Your task to perform on an android device: How much does a3 bedroom apartment rent for in Portland? Image 0: 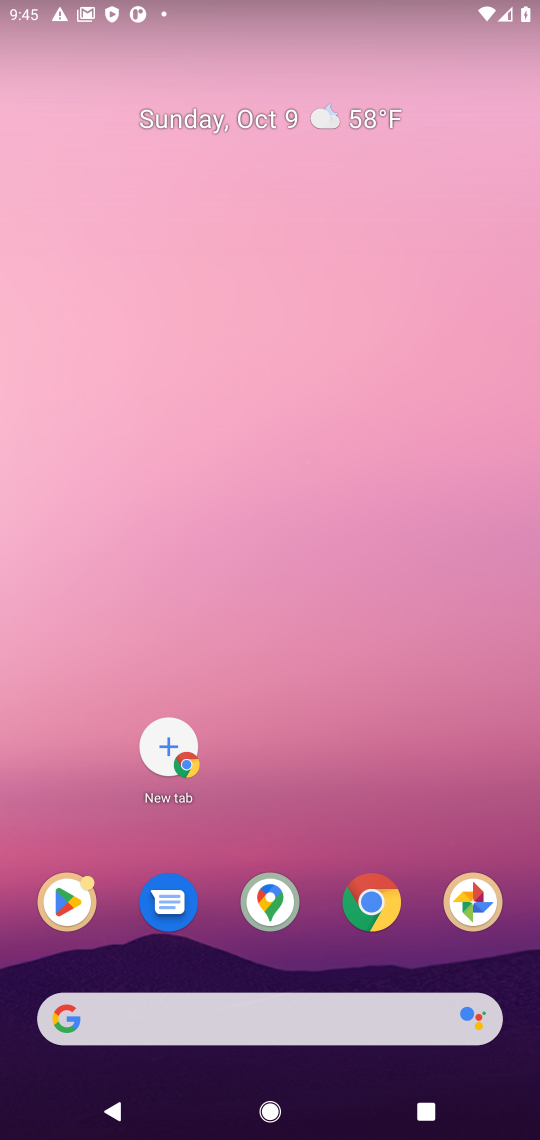
Step 0: click (380, 896)
Your task to perform on an android device: How much does a3 bedroom apartment rent for in Portland? Image 1: 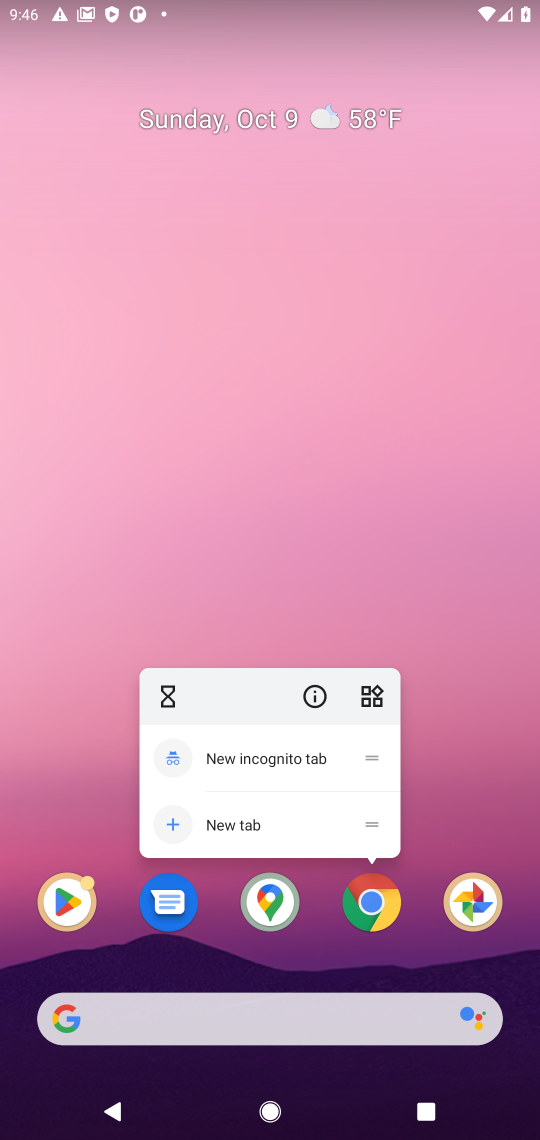
Step 1: click (374, 899)
Your task to perform on an android device: How much does a3 bedroom apartment rent for in Portland? Image 2: 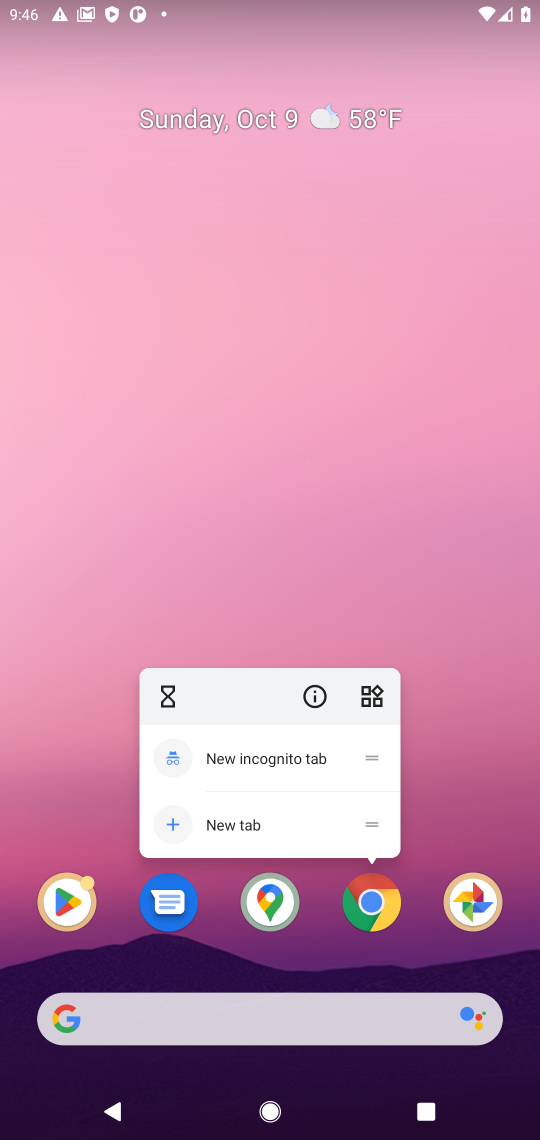
Step 2: click (377, 919)
Your task to perform on an android device: How much does a3 bedroom apartment rent for in Portland? Image 3: 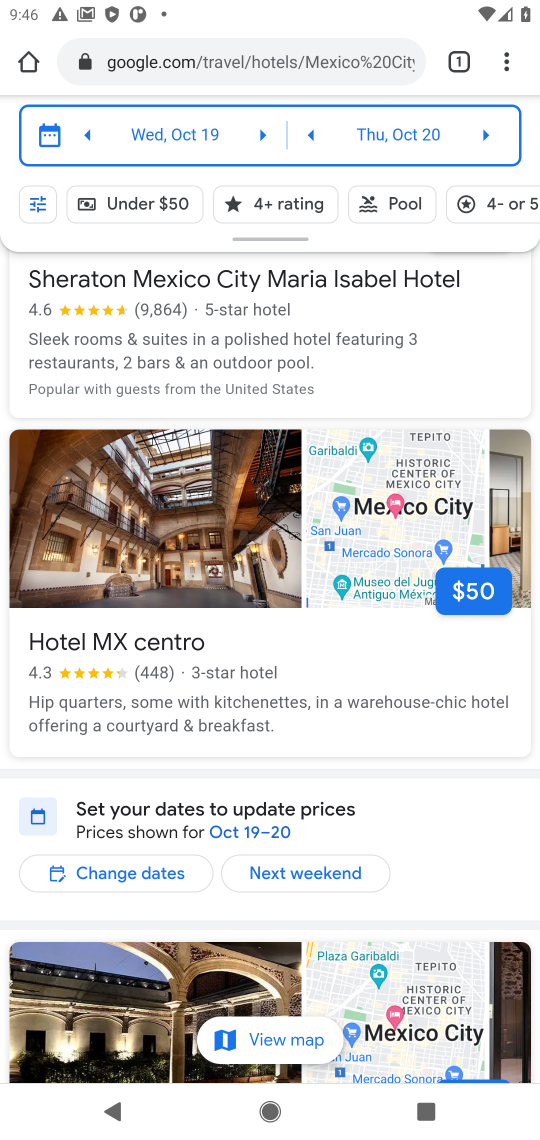
Step 3: click (259, 54)
Your task to perform on an android device: How much does a3 bedroom apartment rent for in Portland? Image 4: 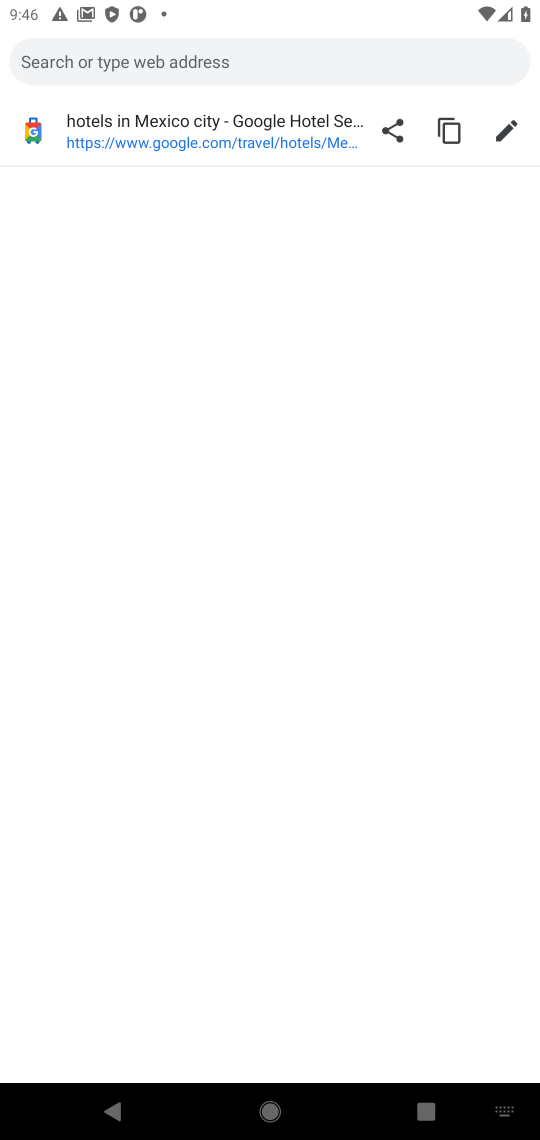
Step 4: type "3 bedroom apartment rent for in Portland"
Your task to perform on an android device: How much does a3 bedroom apartment rent for in Portland? Image 5: 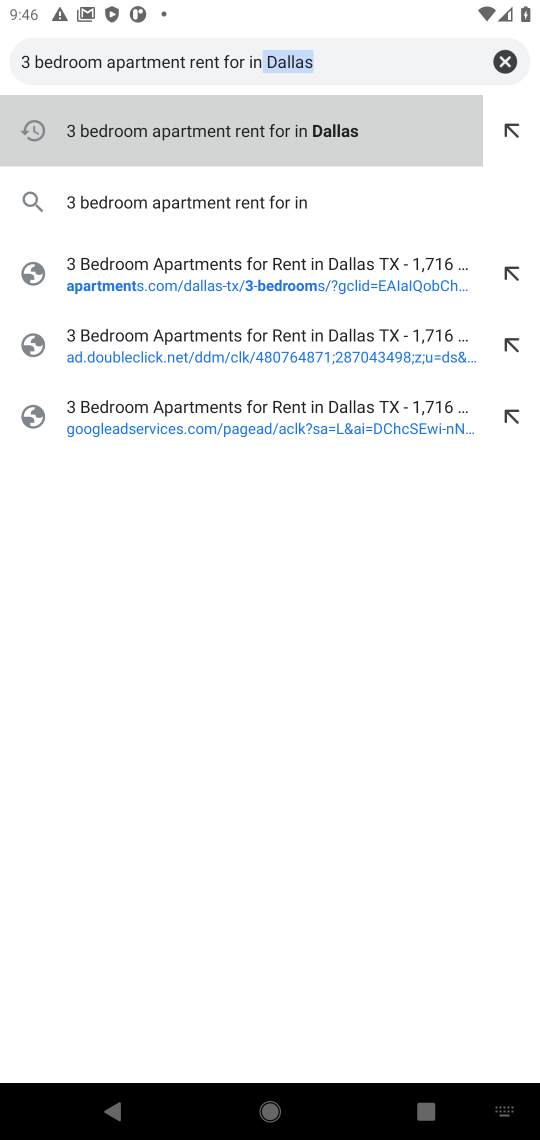
Step 5: click (504, 67)
Your task to perform on an android device: How much does a3 bedroom apartment rent for in Portland? Image 6: 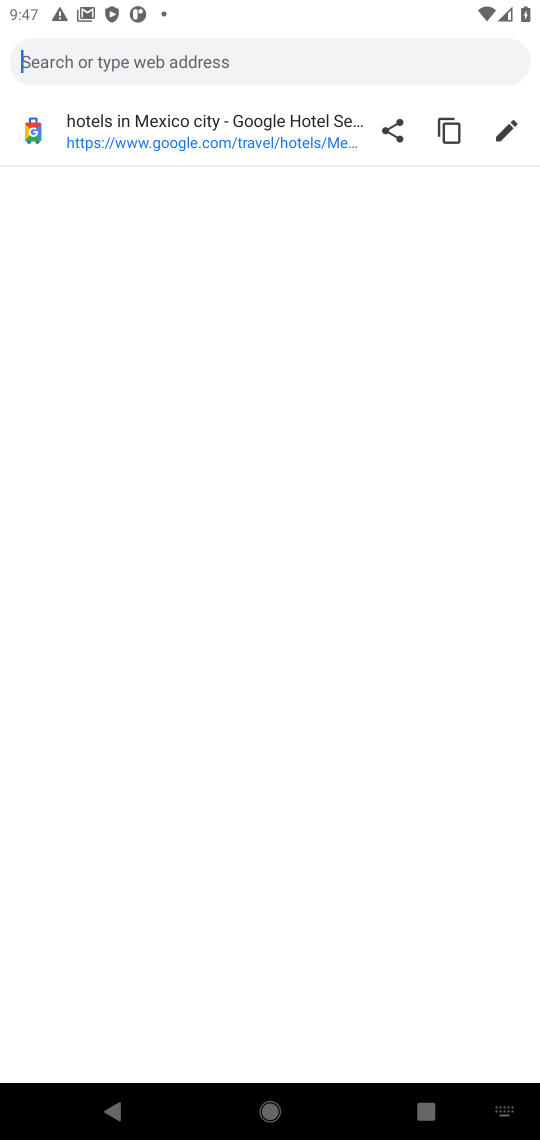
Step 6: type "3 bedroom apartment rent for in portland"
Your task to perform on an android device: How much does a3 bedroom apartment rent for in Portland? Image 7: 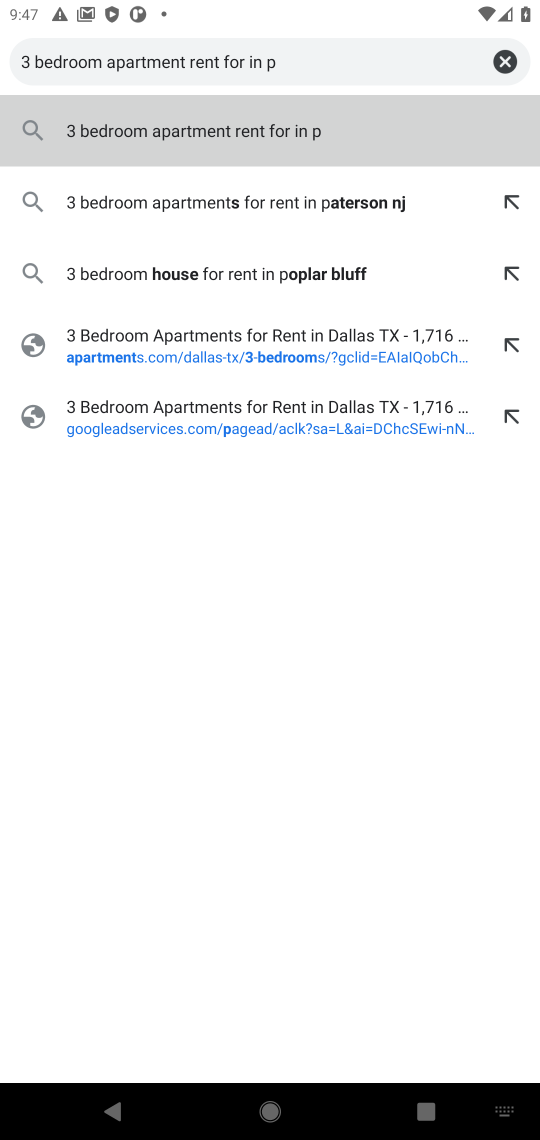
Step 7: type "ortland"
Your task to perform on an android device: How much does a3 bedroom apartment rent for in Portland? Image 8: 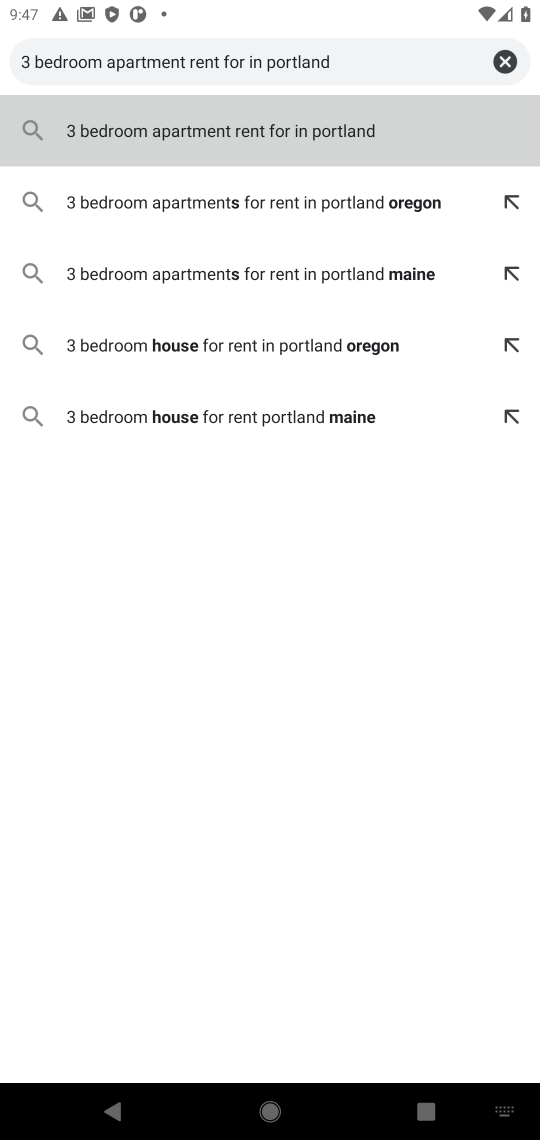
Step 8: type ""
Your task to perform on an android device: How much does a3 bedroom apartment rent for in Portland? Image 9: 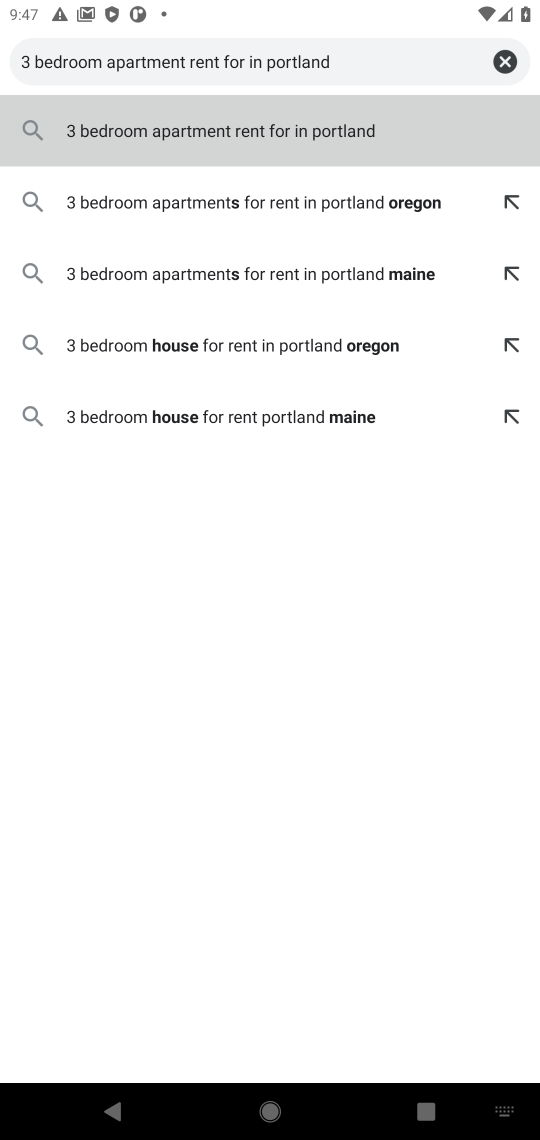
Step 9: click (240, 132)
Your task to perform on an android device: How much does a3 bedroom apartment rent for in Portland? Image 10: 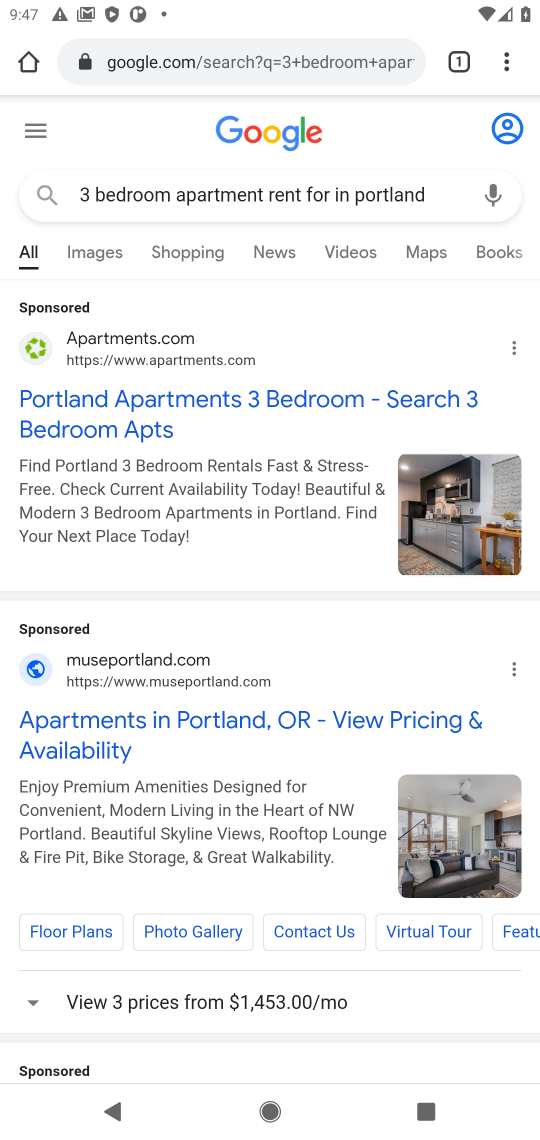
Step 10: click (374, 656)
Your task to perform on an android device: How much does a3 bedroom apartment rent for in Portland? Image 11: 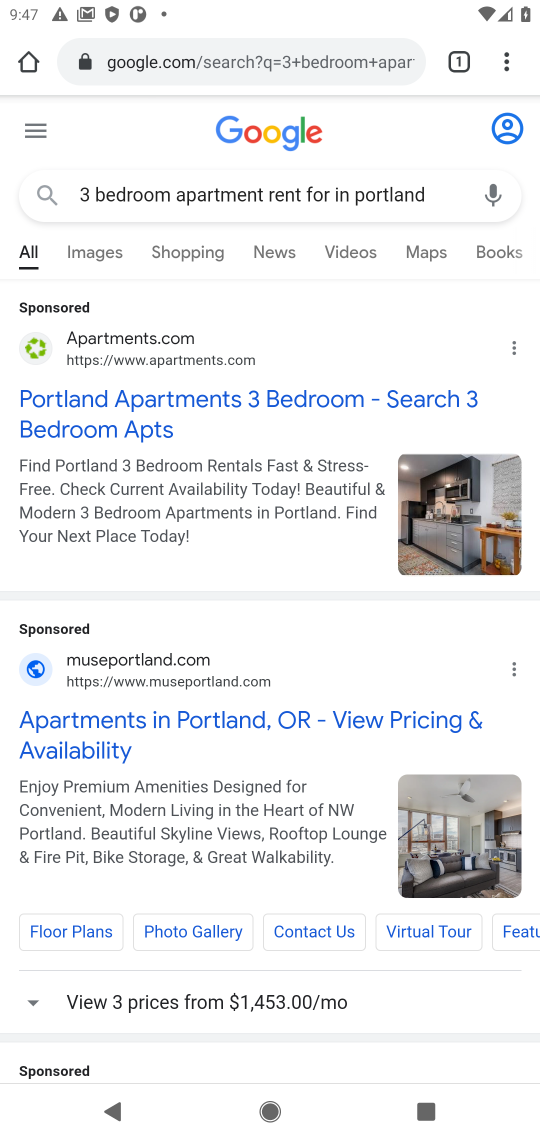
Step 11: click (278, 397)
Your task to perform on an android device: How much does a3 bedroom apartment rent for in Portland? Image 12: 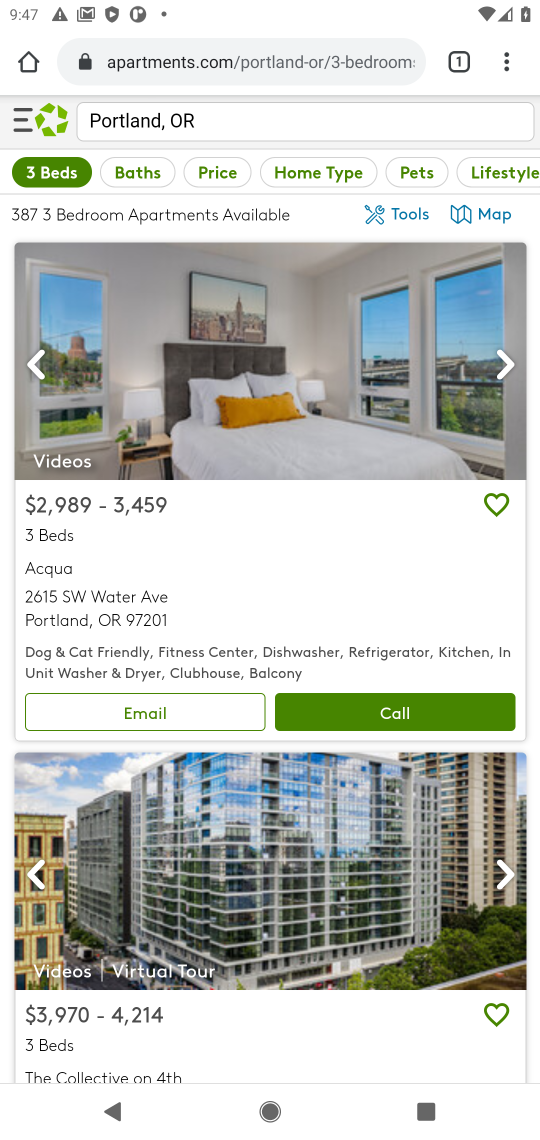
Step 12: task complete